Your task to perform on an android device: turn off airplane mode Image 0: 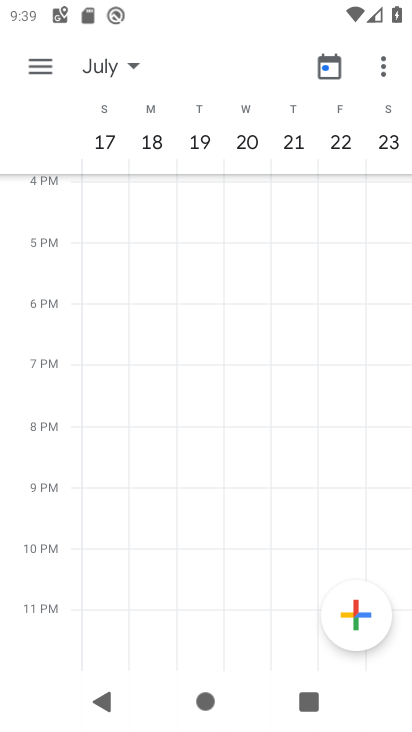
Step 0: press home button
Your task to perform on an android device: turn off airplane mode Image 1: 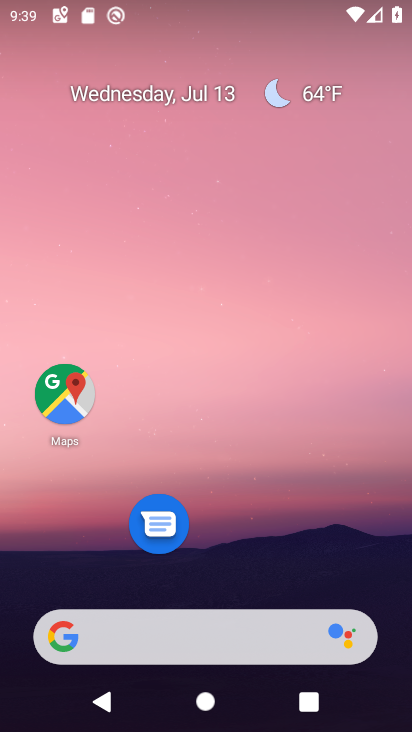
Step 1: drag from (232, 576) to (221, 36)
Your task to perform on an android device: turn off airplane mode Image 2: 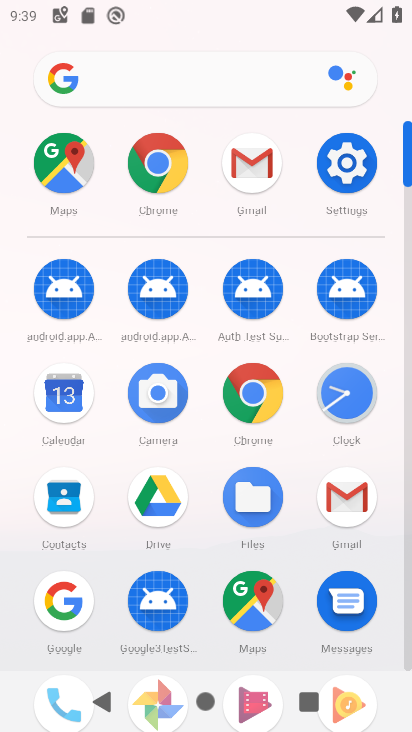
Step 2: click (332, 155)
Your task to perform on an android device: turn off airplane mode Image 3: 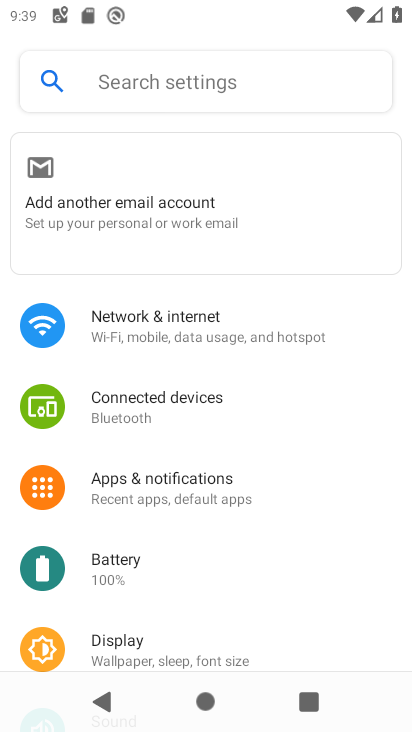
Step 3: click (128, 324)
Your task to perform on an android device: turn off airplane mode Image 4: 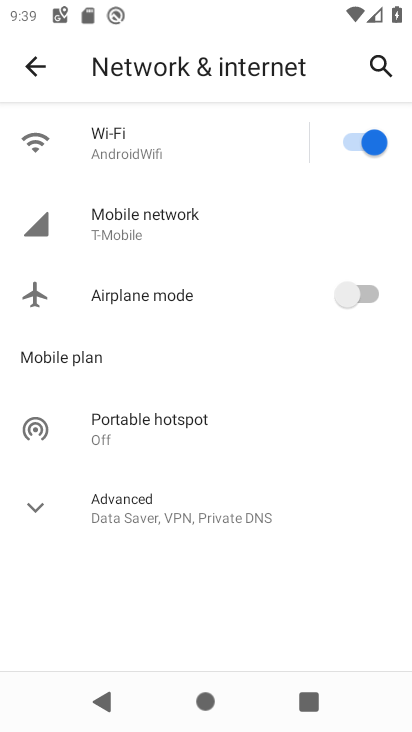
Step 4: task complete